Your task to perform on an android device: Open eBay Image 0: 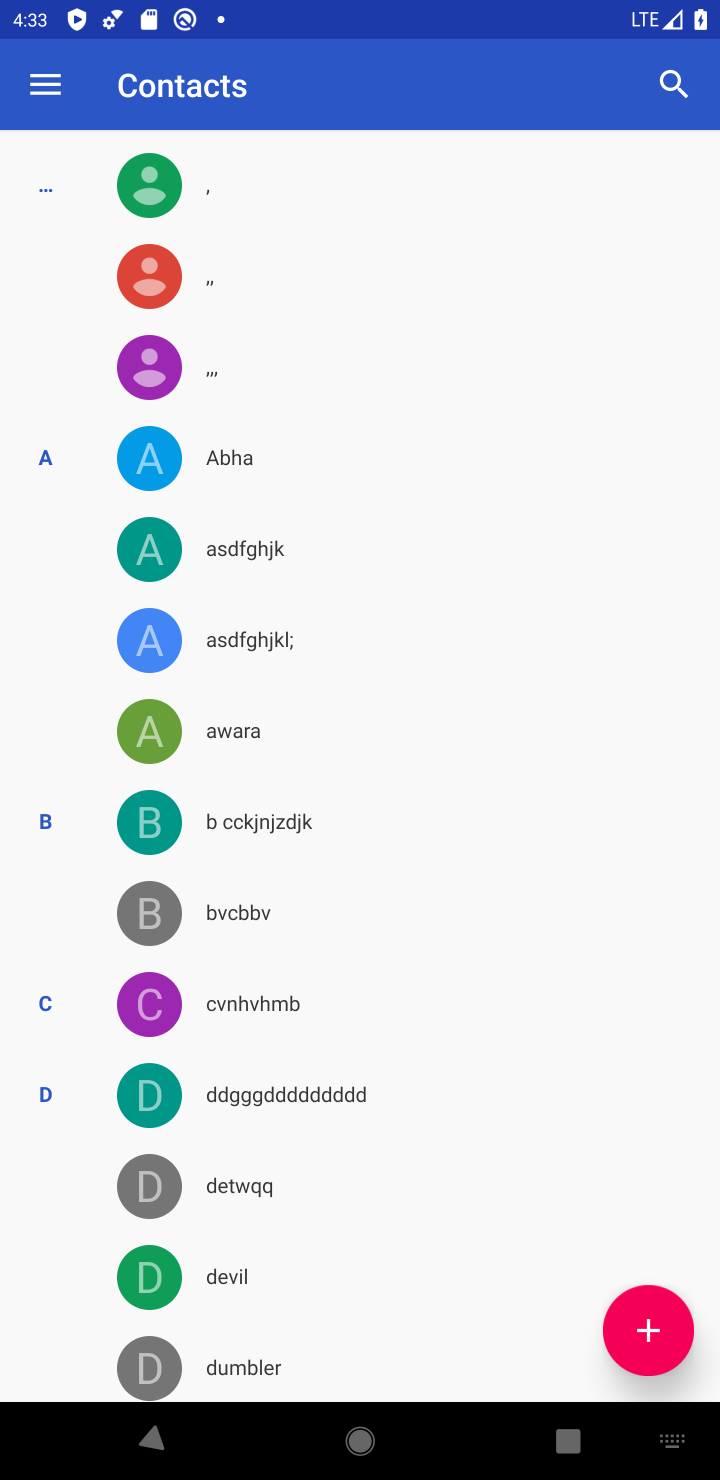
Step 0: press home button
Your task to perform on an android device: Open eBay Image 1: 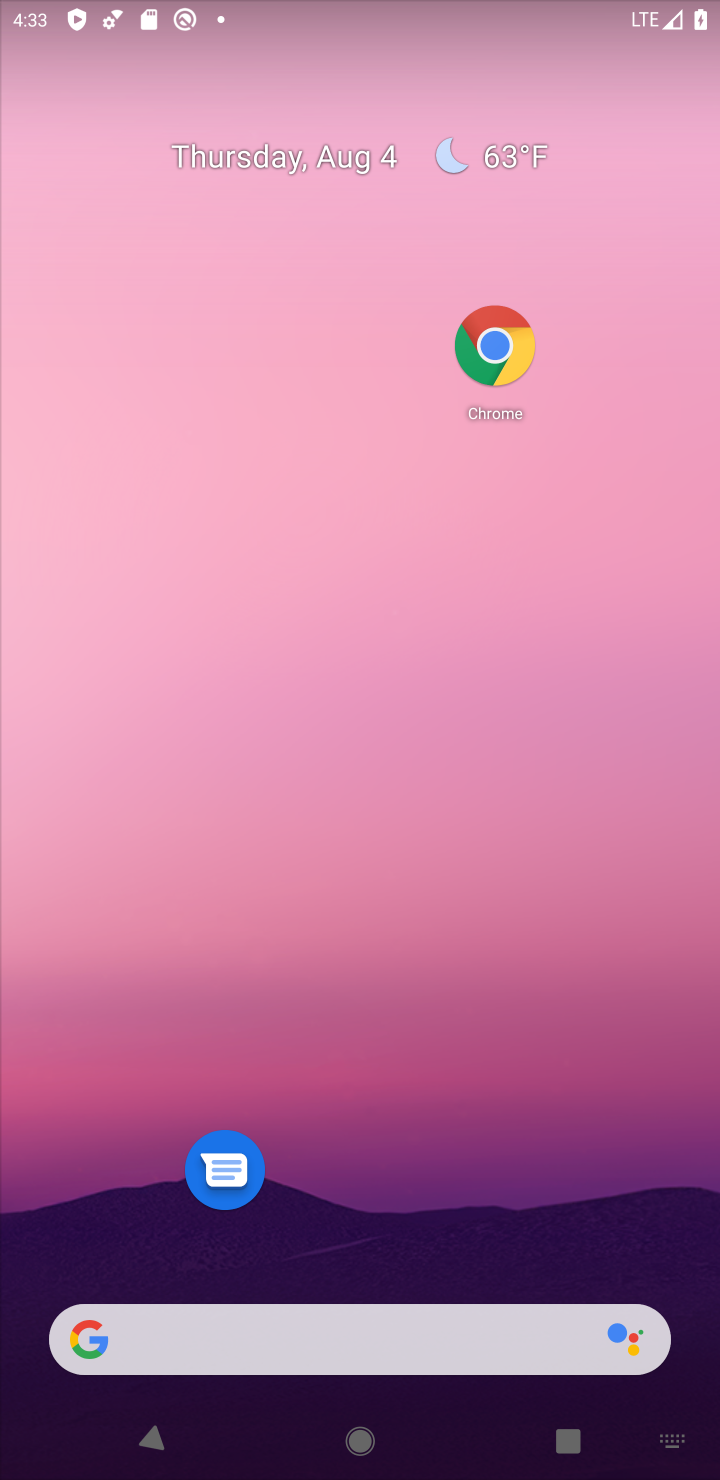
Step 1: click (500, 355)
Your task to perform on an android device: Open eBay Image 2: 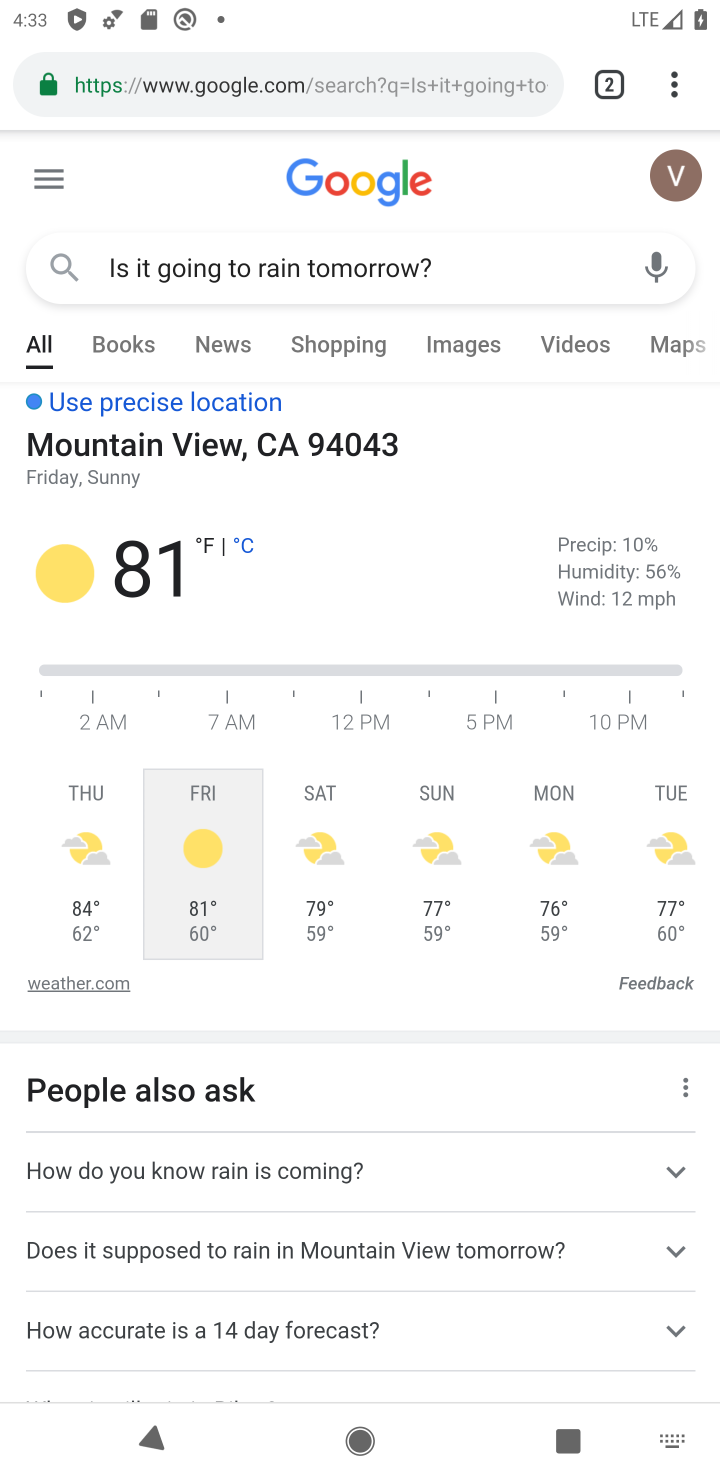
Step 2: click (673, 83)
Your task to perform on an android device: Open eBay Image 3: 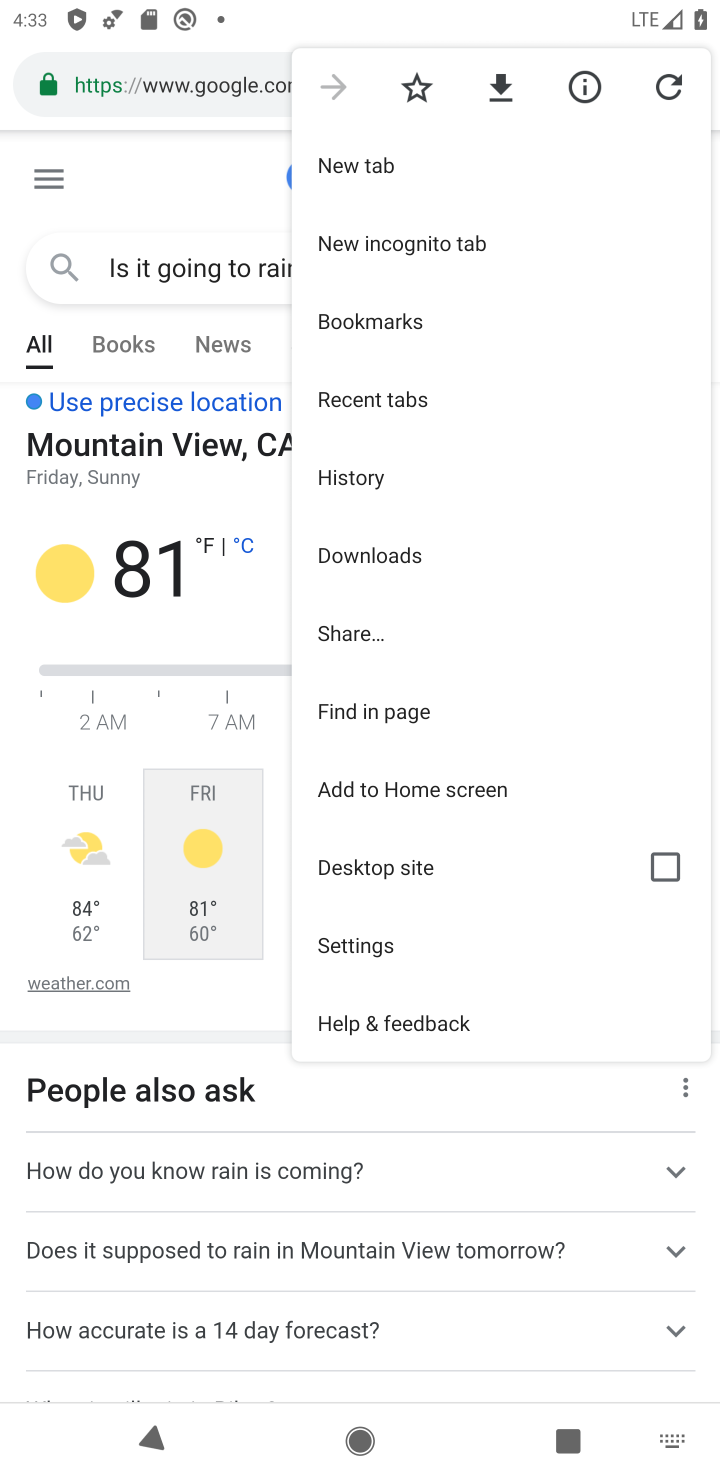
Step 3: click (356, 163)
Your task to perform on an android device: Open eBay Image 4: 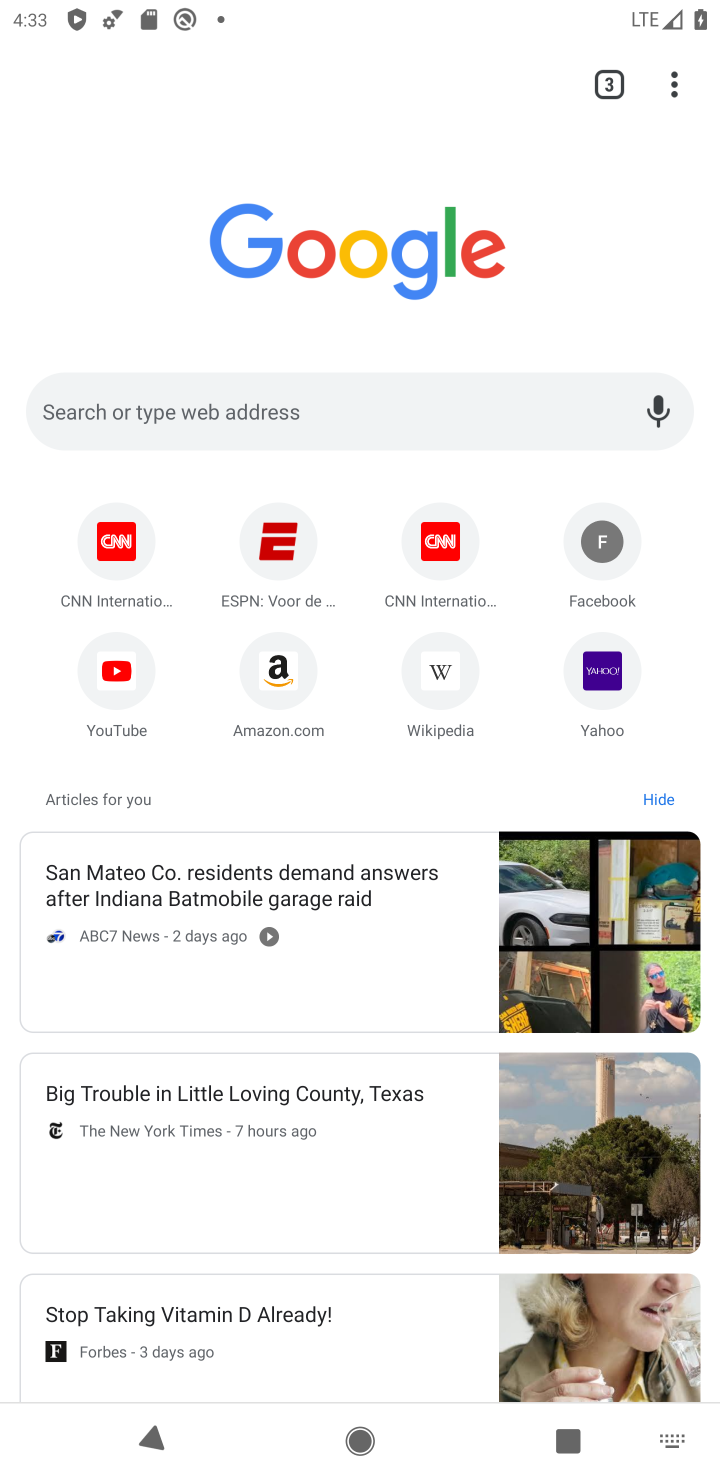
Step 4: click (385, 410)
Your task to perform on an android device: Open eBay Image 5: 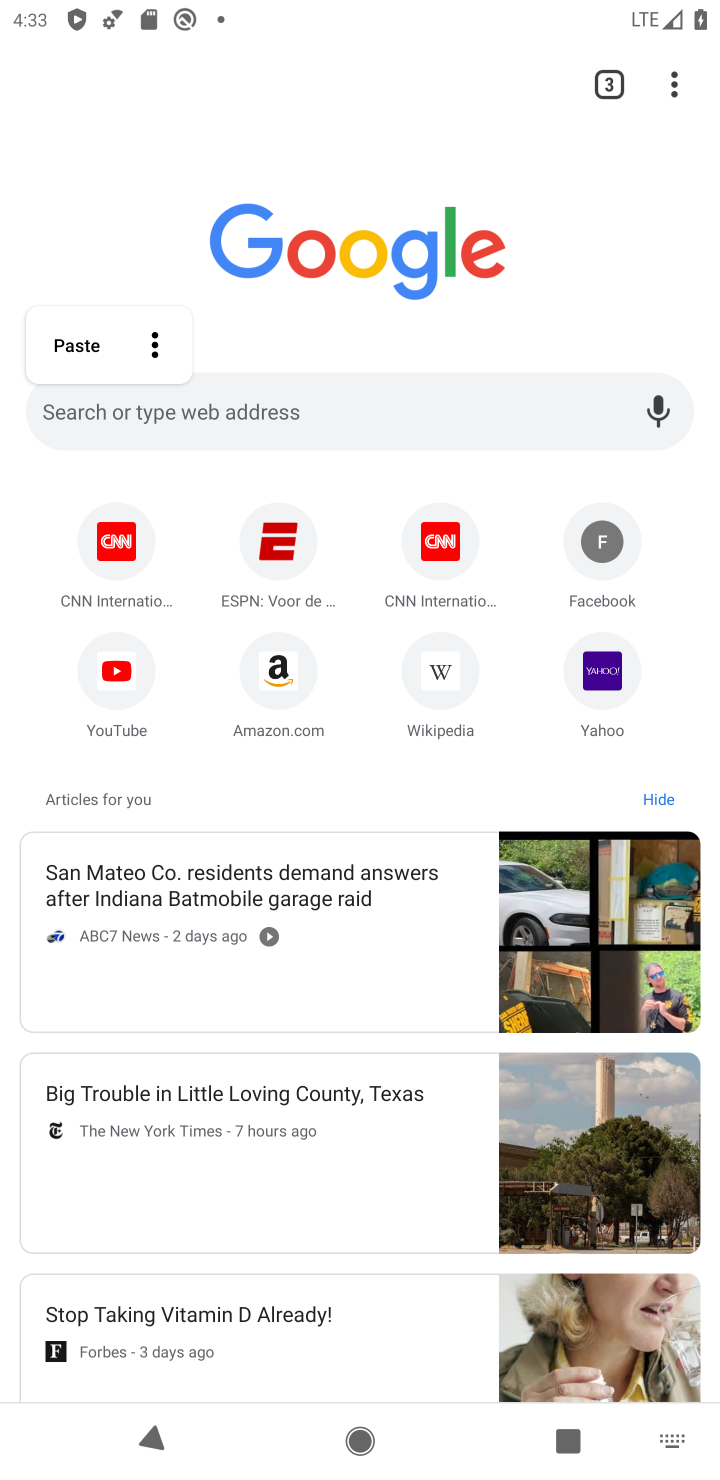
Step 5: type "eBay"
Your task to perform on an android device: Open eBay Image 6: 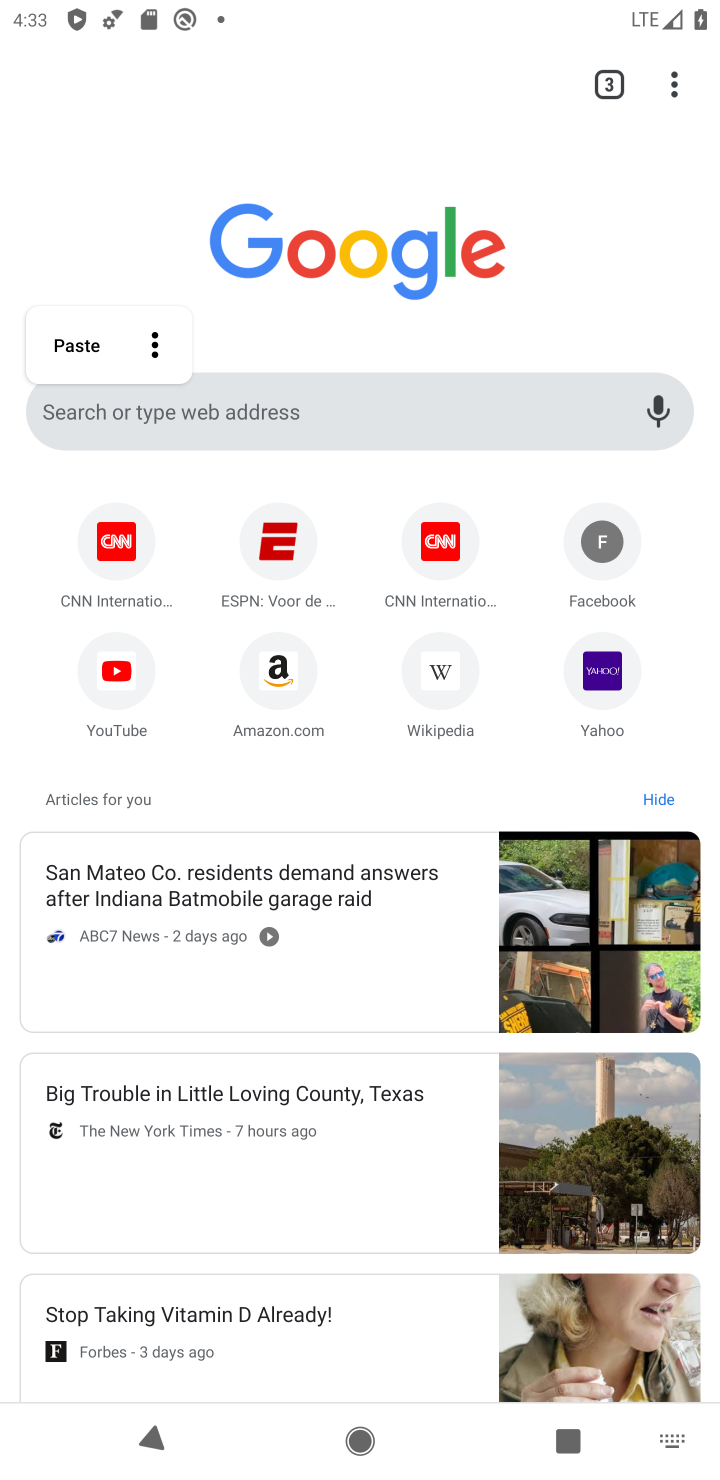
Step 6: click (474, 416)
Your task to perform on an android device: Open eBay Image 7: 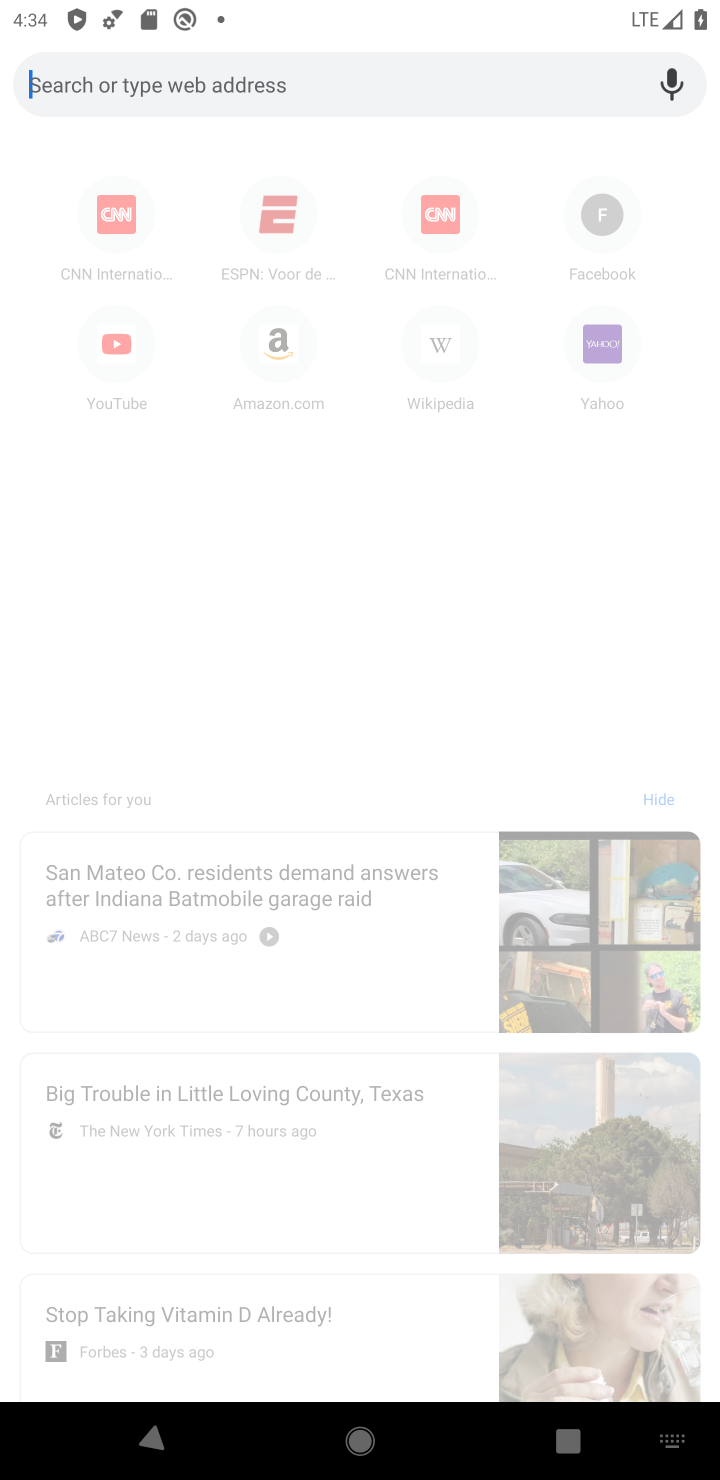
Step 7: type "eBay"
Your task to perform on an android device: Open eBay Image 8: 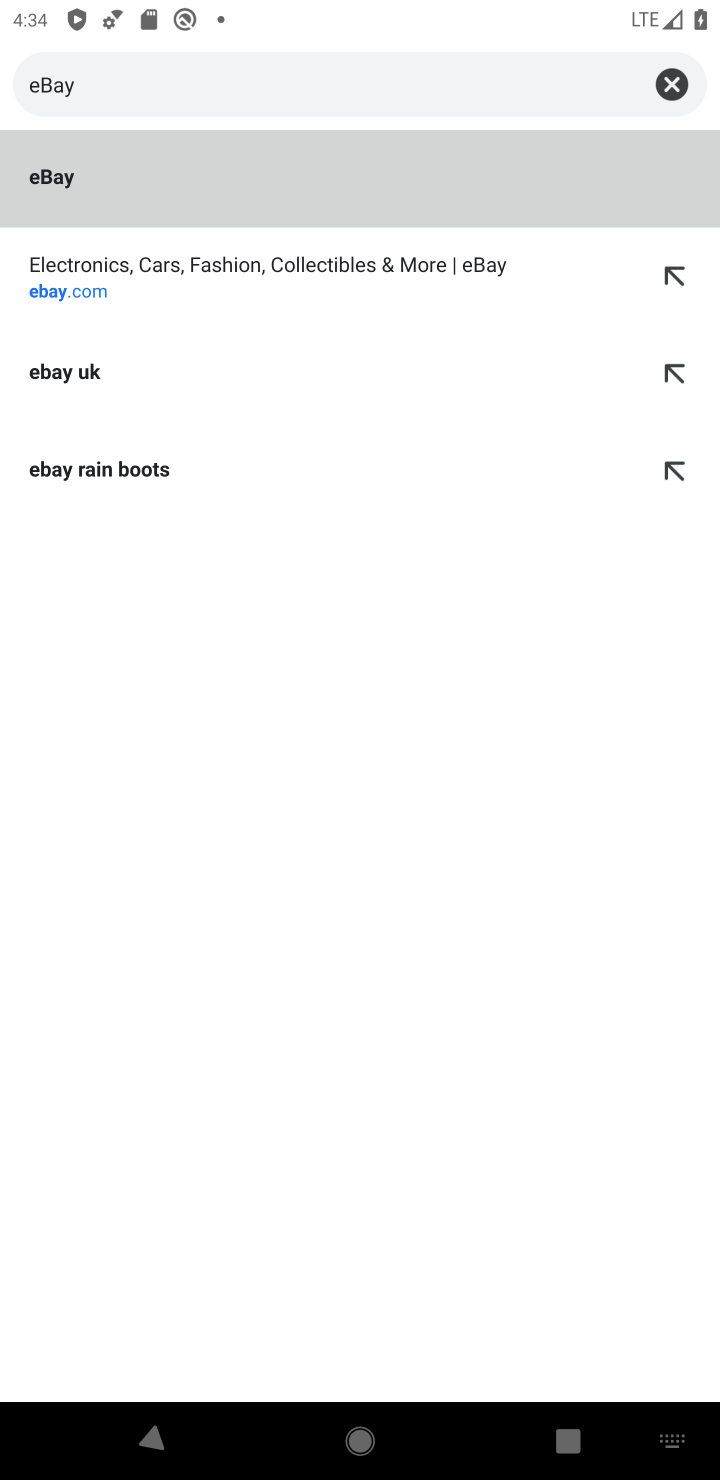
Step 8: click (417, 268)
Your task to perform on an android device: Open eBay Image 9: 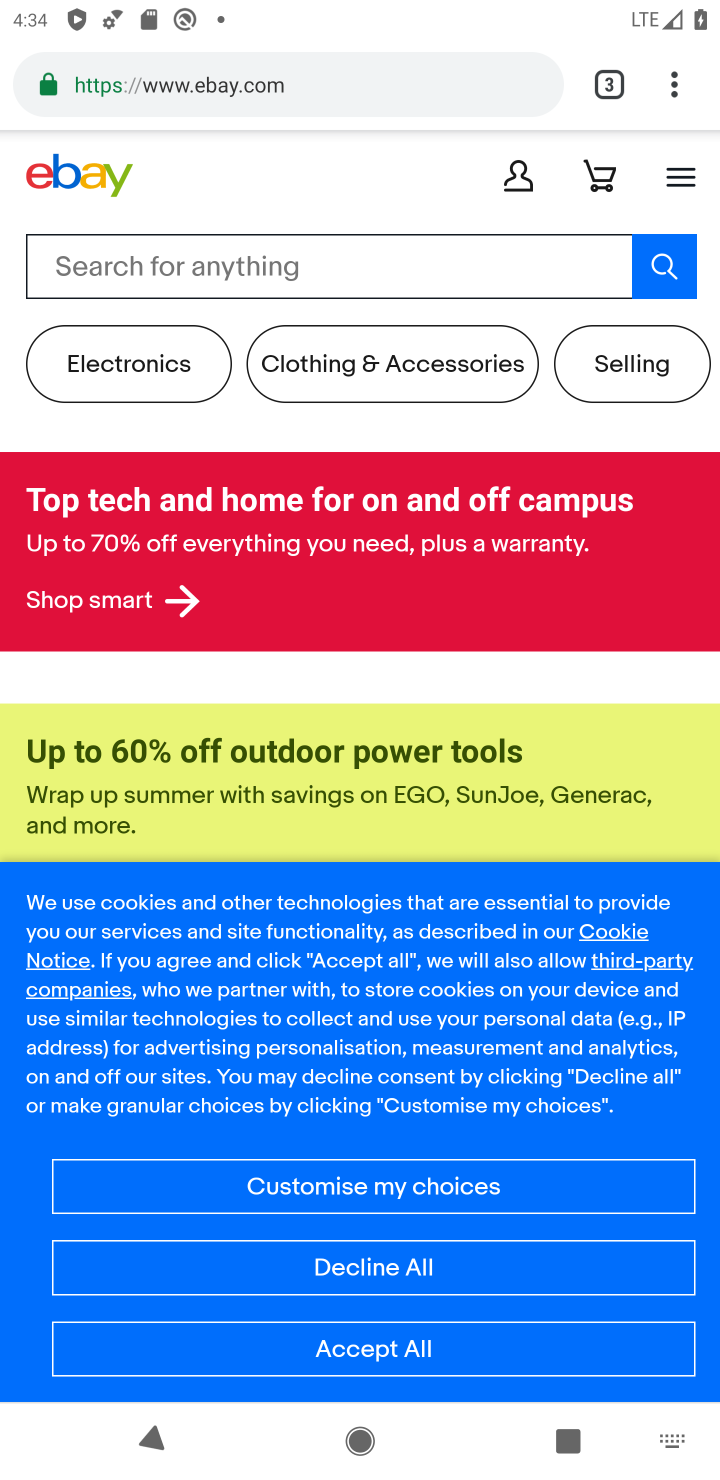
Step 9: task complete